Your task to perform on an android device: clear history in the chrome app Image 0: 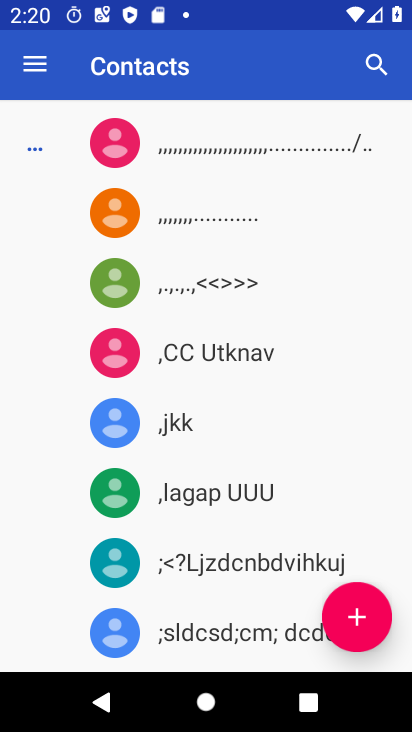
Step 0: press home button
Your task to perform on an android device: clear history in the chrome app Image 1: 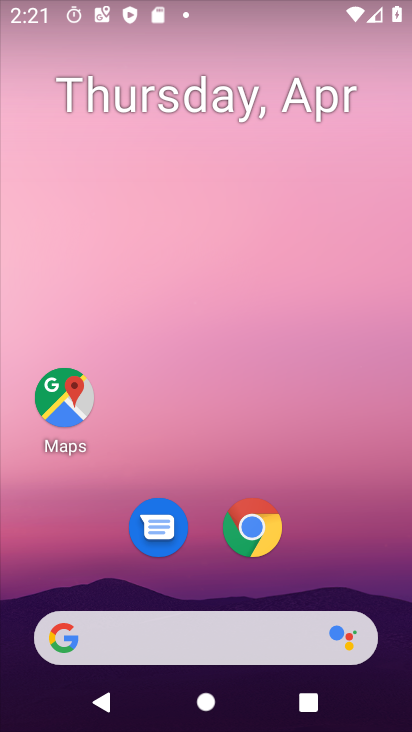
Step 1: click (252, 533)
Your task to perform on an android device: clear history in the chrome app Image 2: 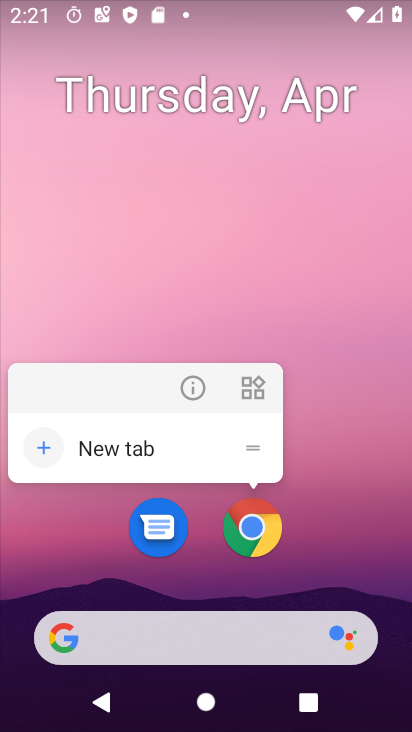
Step 2: click (254, 529)
Your task to perform on an android device: clear history in the chrome app Image 3: 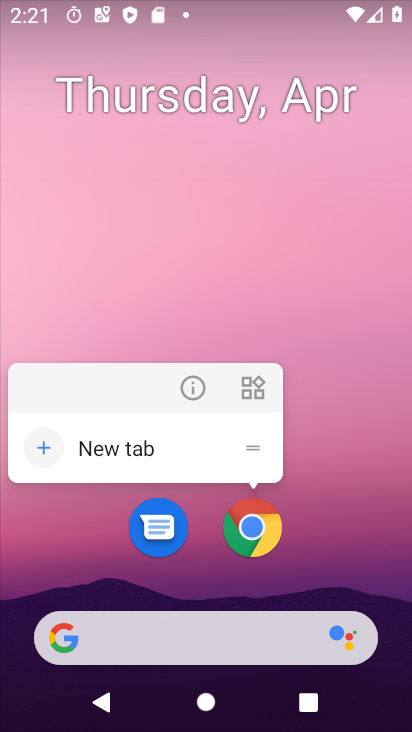
Step 3: click (260, 529)
Your task to perform on an android device: clear history in the chrome app Image 4: 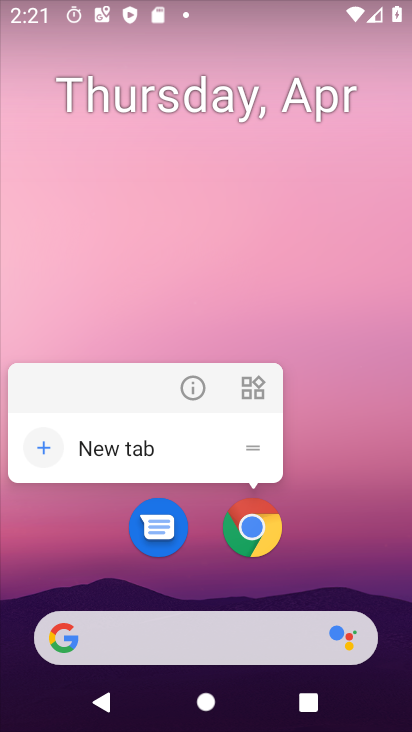
Step 4: click (253, 532)
Your task to perform on an android device: clear history in the chrome app Image 5: 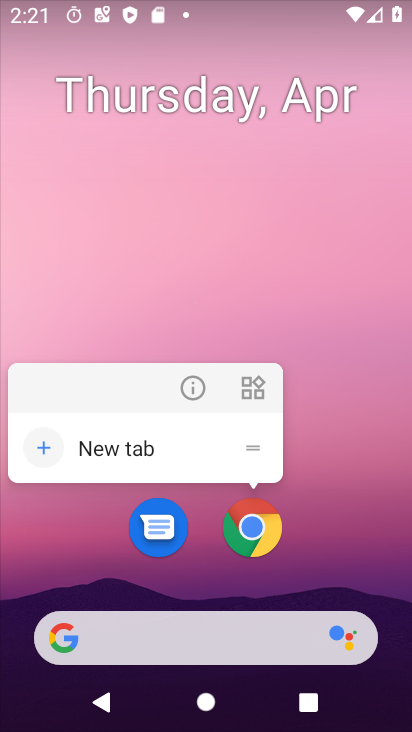
Step 5: drag from (335, 467) to (361, 41)
Your task to perform on an android device: clear history in the chrome app Image 6: 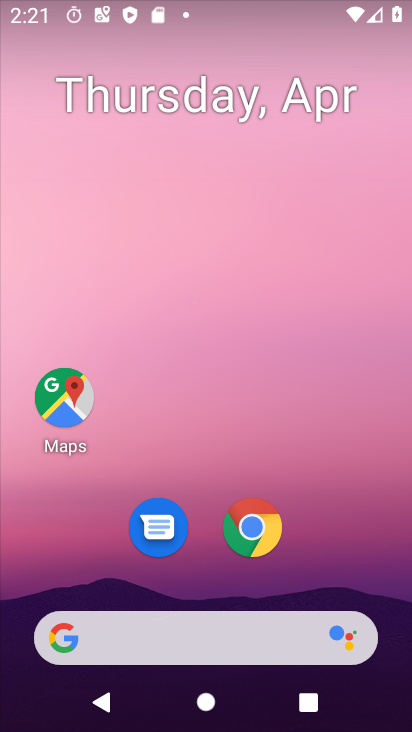
Step 6: drag from (311, 481) to (280, 146)
Your task to perform on an android device: clear history in the chrome app Image 7: 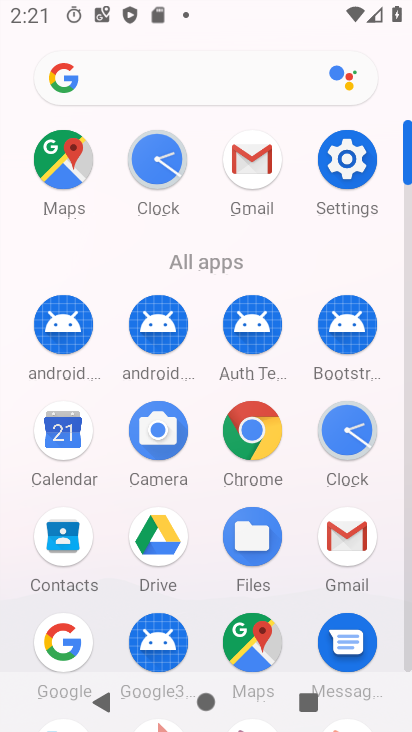
Step 7: click (254, 428)
Your task to perform on an android device: clear history in the chrome app Image 8: 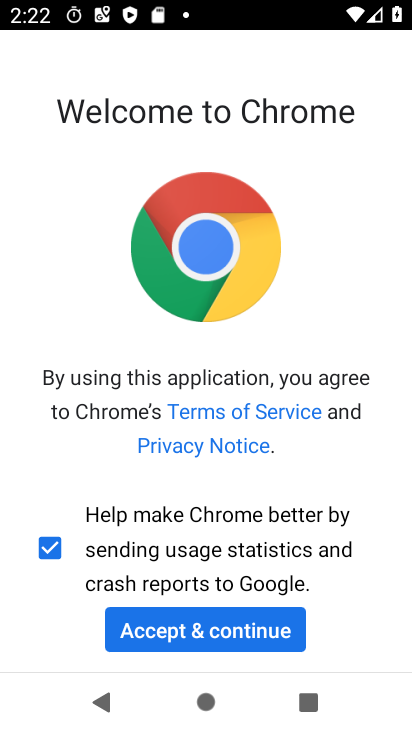
Step 8: click (232, 627)
Your task to perform on an android device: clear history in the chrome app Image 9: 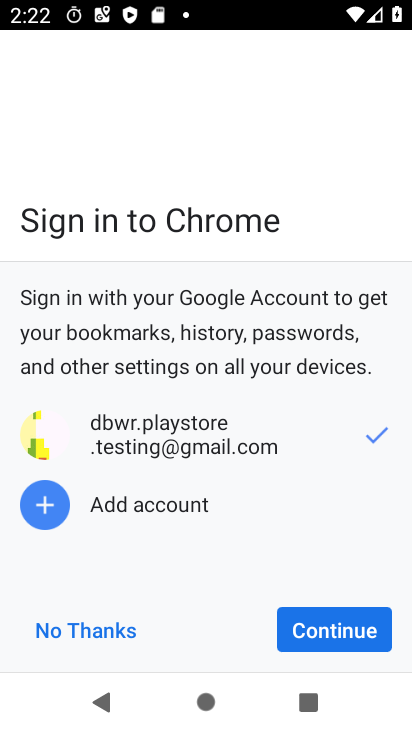
Step 9: click (309, 621)
Your task to perform on an android device: clear history in the chrome app Image 10: 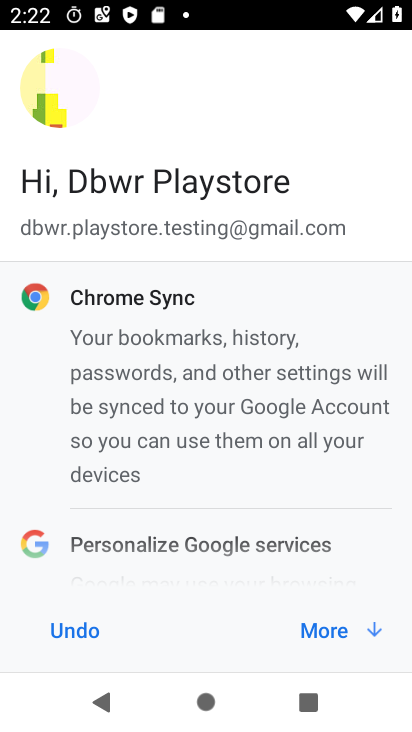
Step 10: click (310, 628)
Your task to perform on an android device: clear history in the chrome app Image 11: 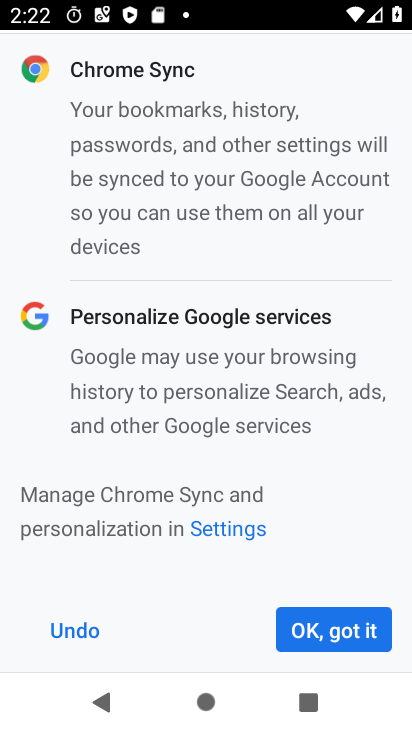
Step 11: click (310, 628)
Your task to perform on an android device: clear history in the chrome app Image 12: 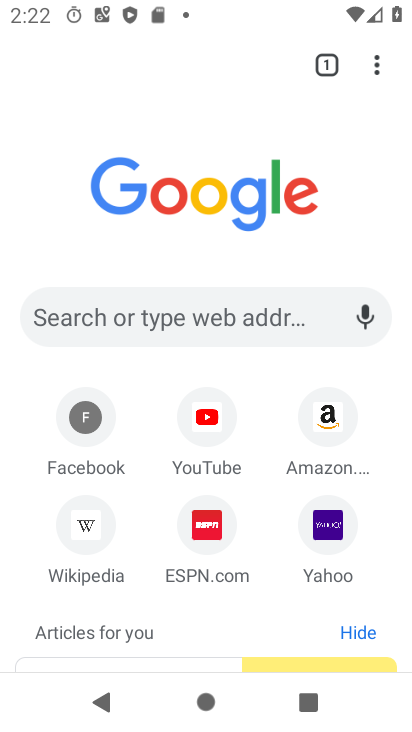
Step 12: task complete